Your task to perform on an android device: set the stopwatch Image 0: 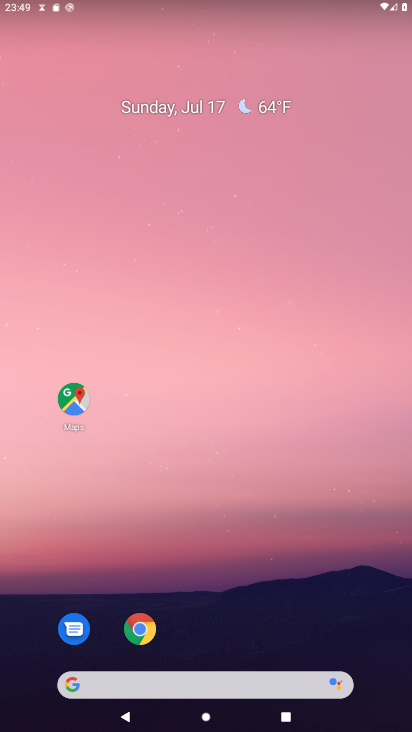
Step 0: drag from (334, 636) to (270, 78)
Your task to perform on an android device: set the stopwatch Image 1: 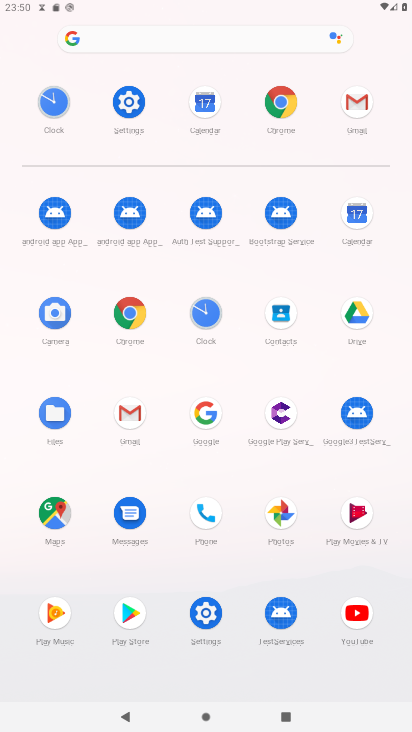
Step 1: click (207, 312)
Your task to perform on an android device: set the stopwatch Image 2: 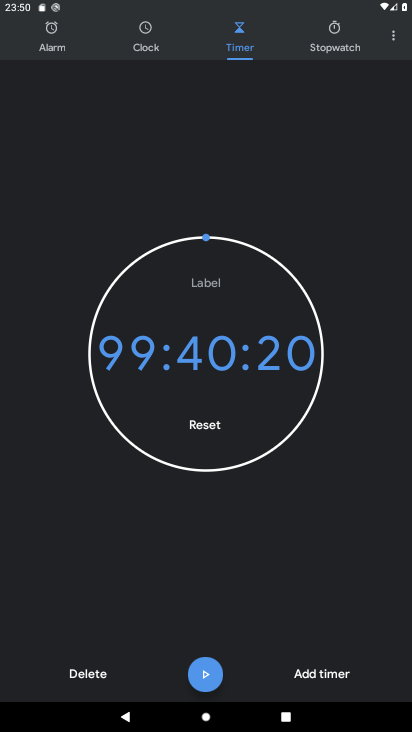
Step 2: click (322, 33)
Your task to perform on an android device: set the stopwatch Image 3: 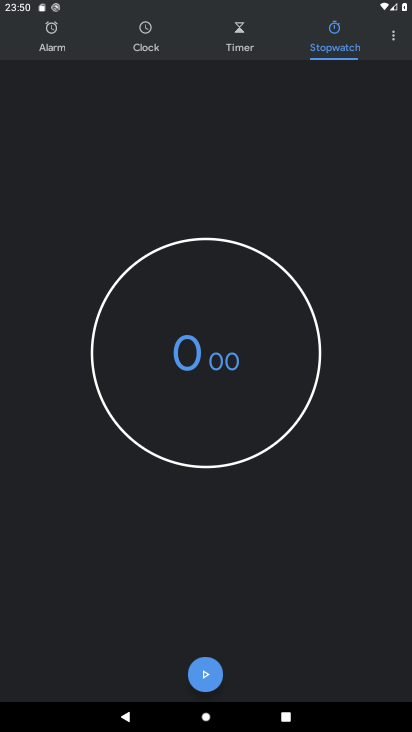
Step 3: task complete